Your task to perform on an android device: What's the weather going to be tomorrow? Image 0: 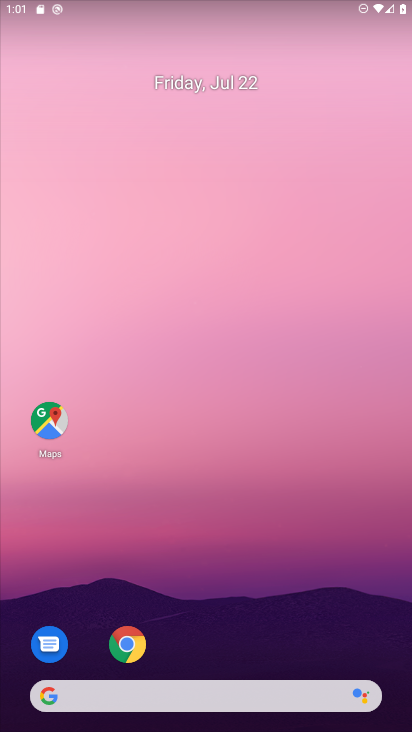
Step 0: click (283, 696)
Your task to perform on an android device: What's the weather going to be tomorrow? Image 1: 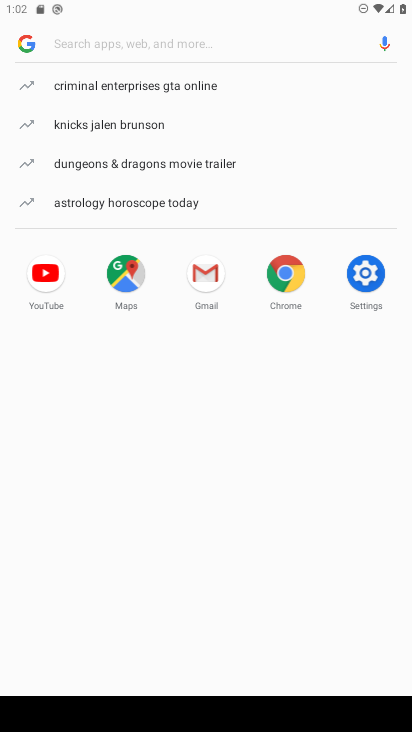
Step 1: type "weather"
Your task to perform on an android device: What's the weather going to be tomorrow? Image 2: 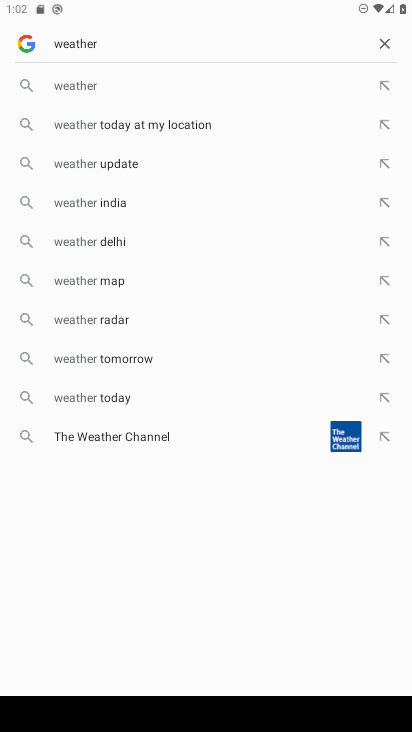
Step 2: click (178, 81)
Your task to perform on an android device: What's the weather going to be tomorrow? Image 3: 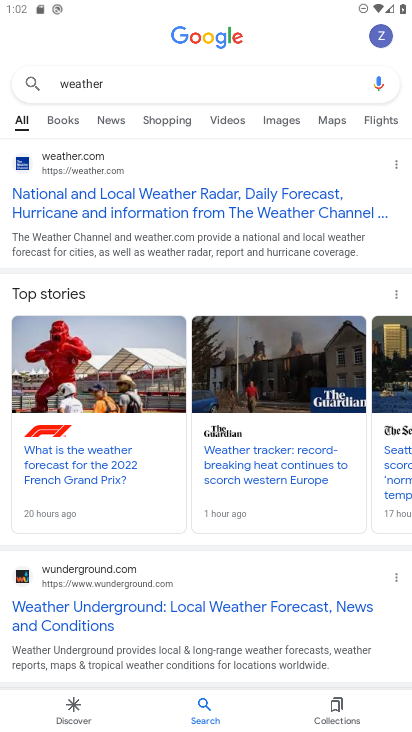
Step 3: task complete